Your task to perform on an android device: turn on priority inbox in the gmail app Image 0: 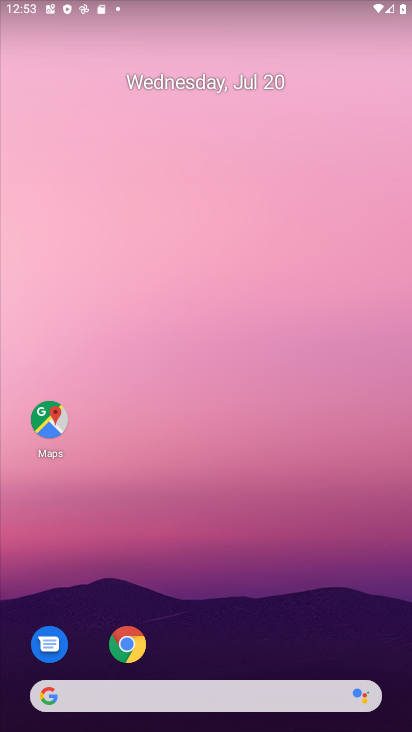
Step 0: press home button
Your task to perform on an android device: turn on priority inbox in the gmail app Image 1: 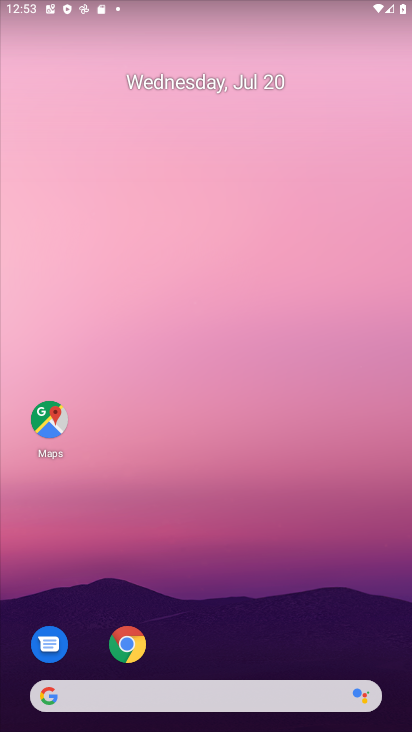
Step 1: press home button
Your task to perform on an android device: turn on priority inbox in the gmail app Image 2: 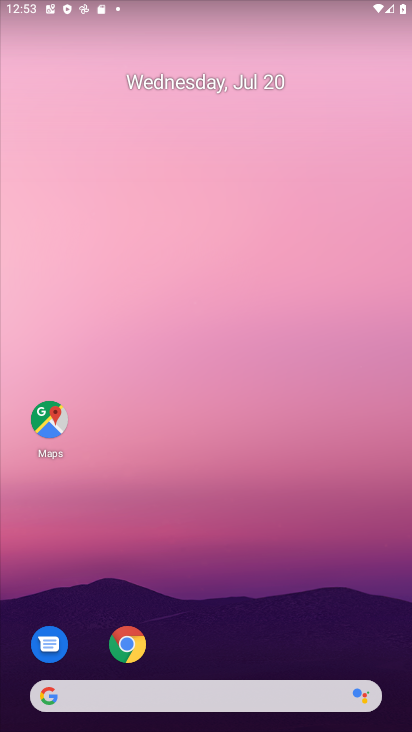
Step 2: press home button
Your task to perform on an android device: turn on priority inbox in the gmail app Image 3: 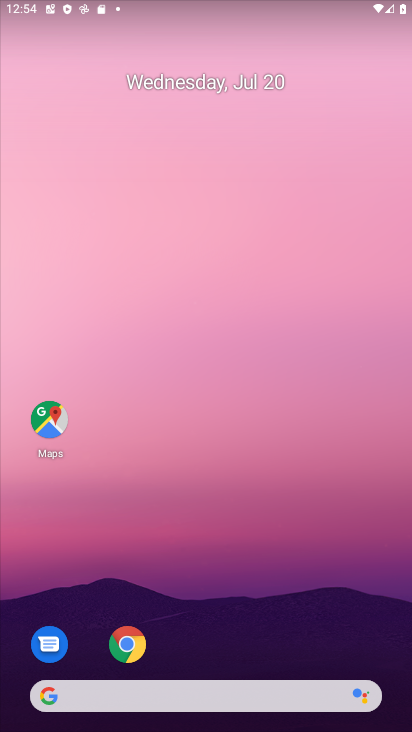
Step 3: drag from (202, 654) to (383, 16)
Your task to perform on an android device: turn on priority inbox in the gmail app Image 4: 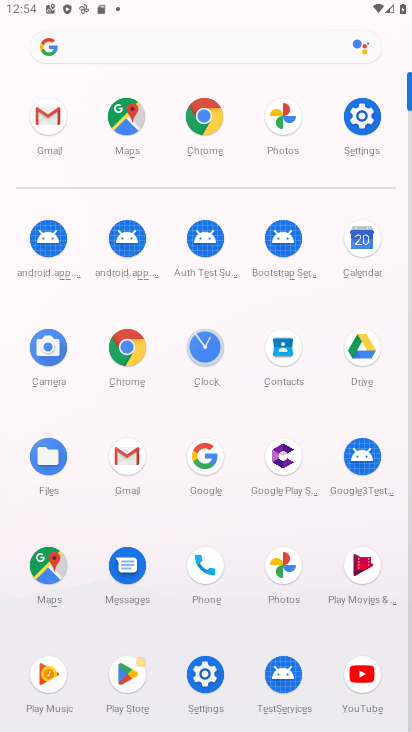
Step 4: click (127, 482)
Your task to perform on an android device: turn on priority inbox in the gmail app Image 5: 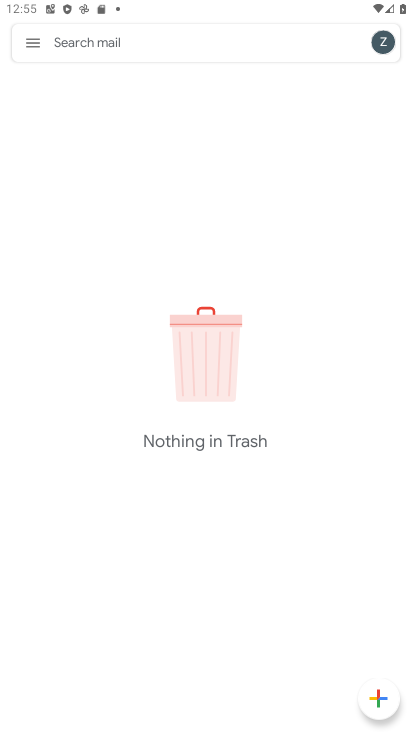
Step 5: click (34, 46)
Your task to perform on an android device: turn on priority inbox in the gmail app Image 6: 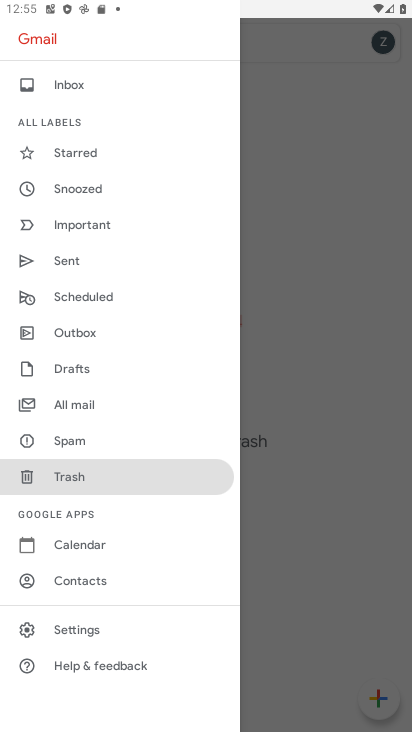
Step 6: click (89, 634)
Your task to perform on an android device: turn on priority inbox in the gmail app Image 7: 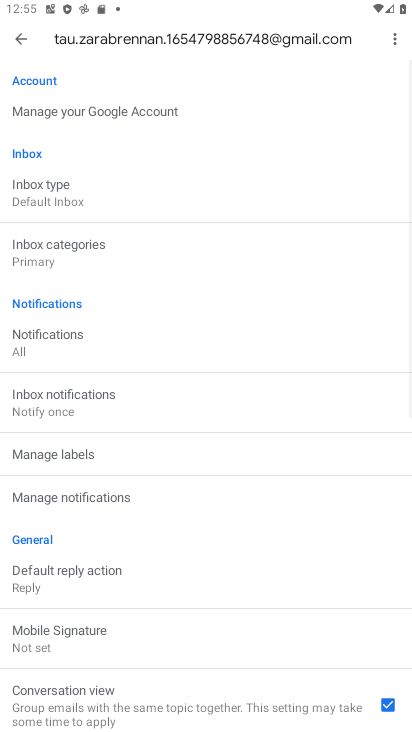
Step 7: click (83, 212)
Your task to perform on an android device: turn on priority inbox in the gmail app Image 8: 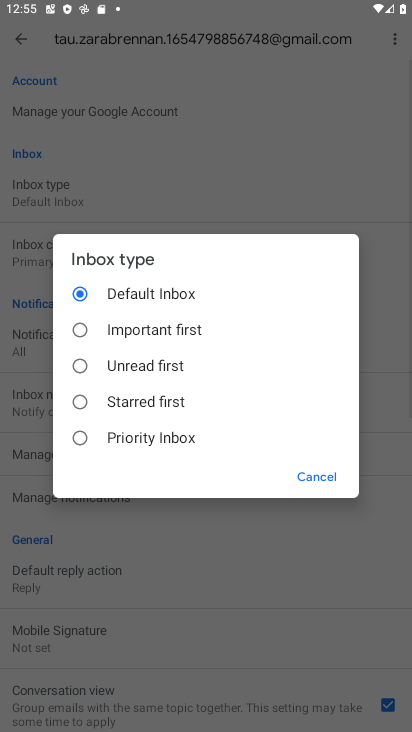
Step 8: click (132, 434)
Your task to perform on an android device: turn on priority inbox in the gmail app Image 9: 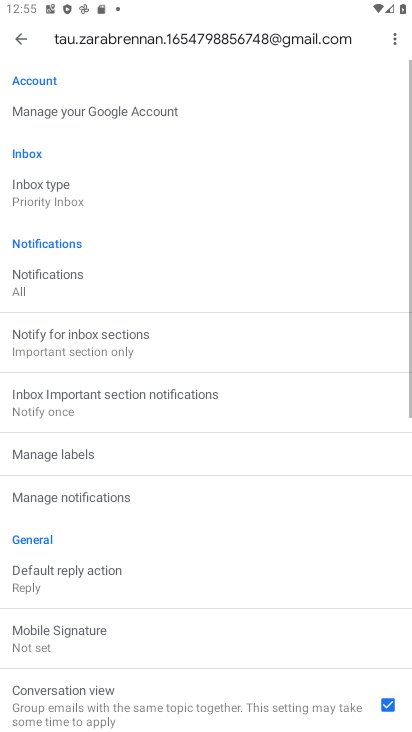
Step 9: task complete